Your task to perform on an android device: move an email to a new category in the gmail app Image 0: 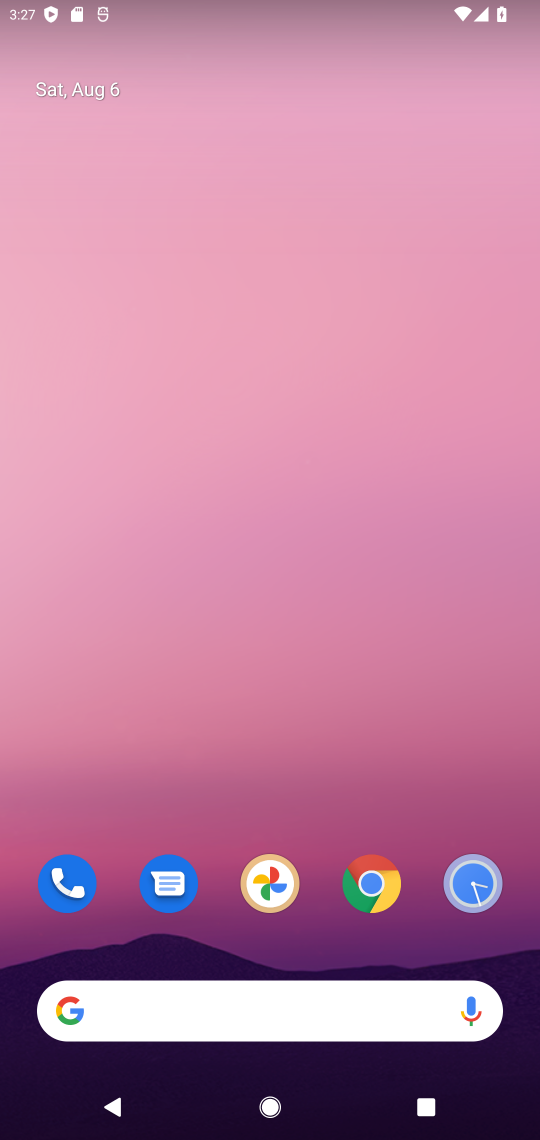
Step 0: drag from (309, 888) to (440, 135)
Your task to perform on an android device: move an email to a new category in the gmail app Image 1: 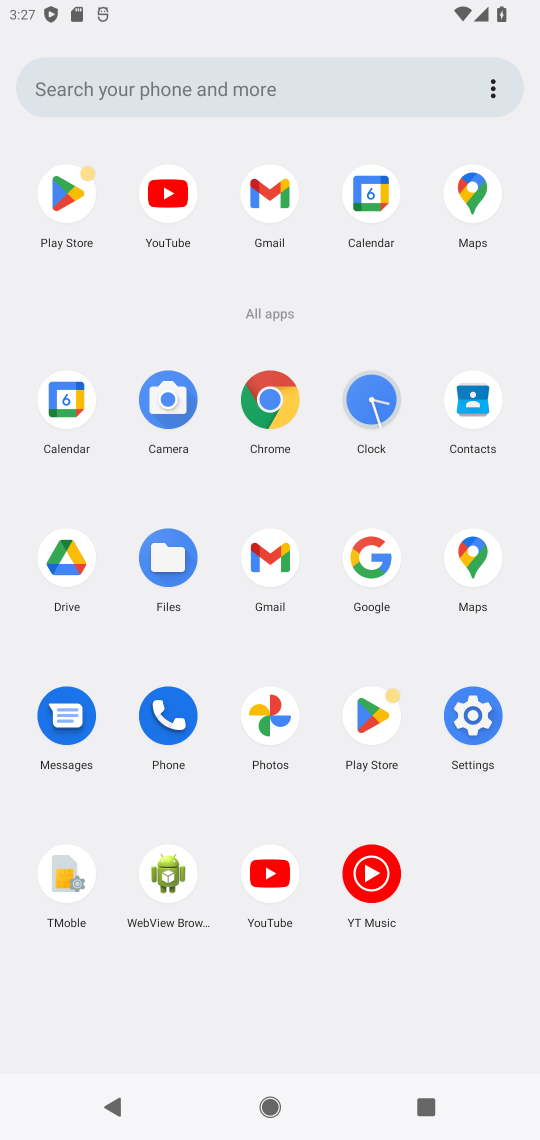
Step 1: click (275, 569)
Your task to perform on an android device: move an email to a new category in the gmail app Image 2: 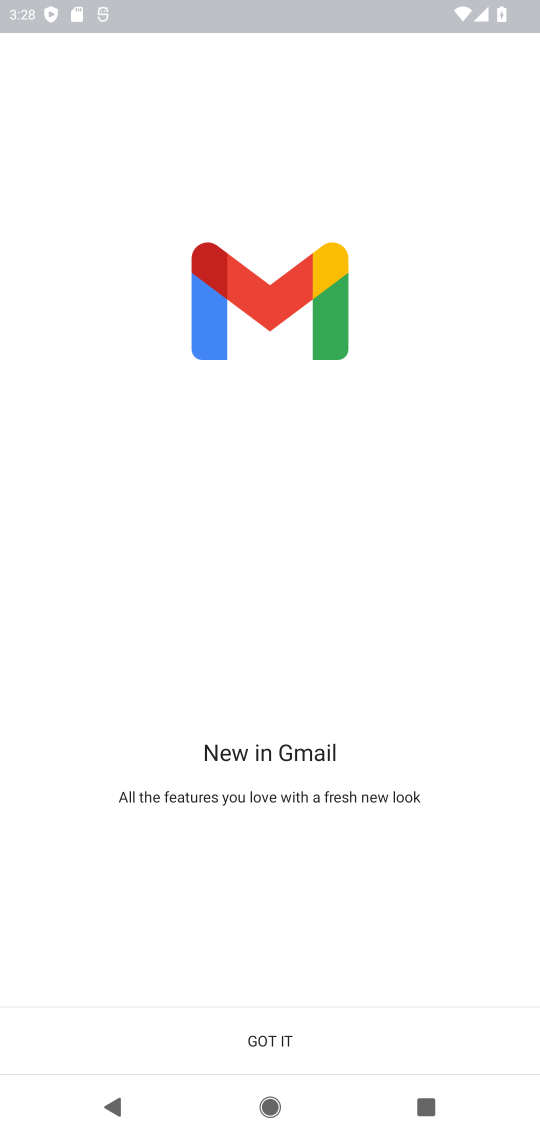
Step 2: click (238, 1026)
Your task to perform on an android device: move an email to a new category in the gmail app Image 3: 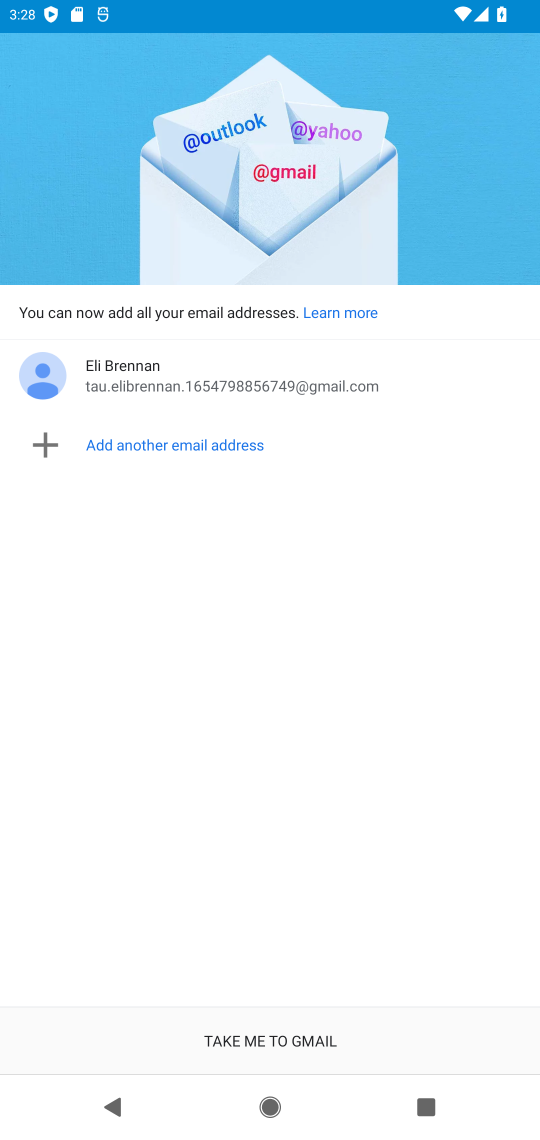
Step 3: click (231, 1022)
Your task to perform on an android device: move an email to a new category in the gmail app Image 4: 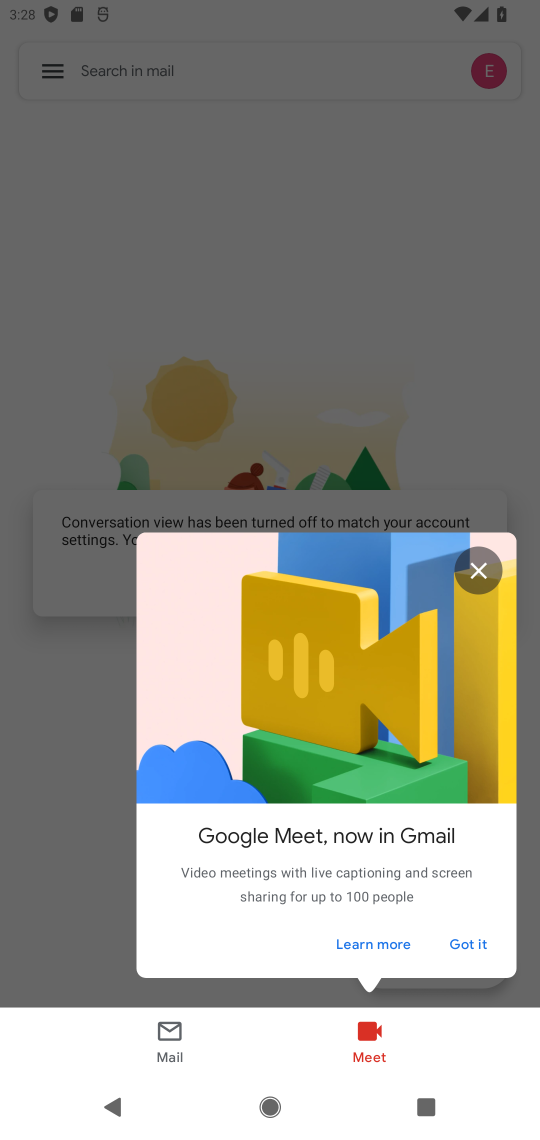
Step 4: click (469, 945)
Your task to perform on an android device: move an email to a new category in the gmail app Image 5: 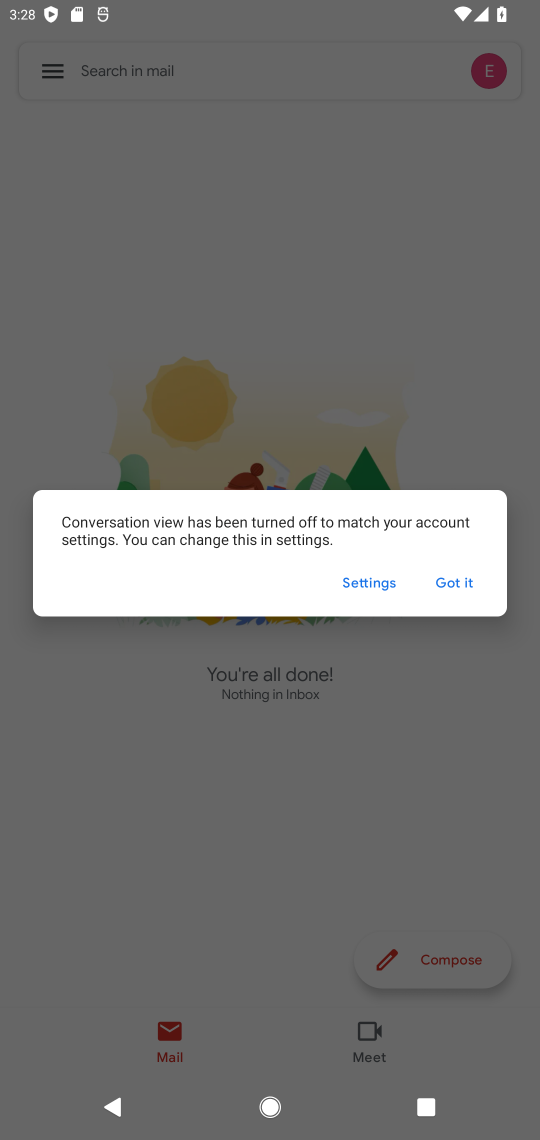
Step 5: click (449, 579)
Your task to perform on an android device: move an email to a new category in the gmail app Image 6: 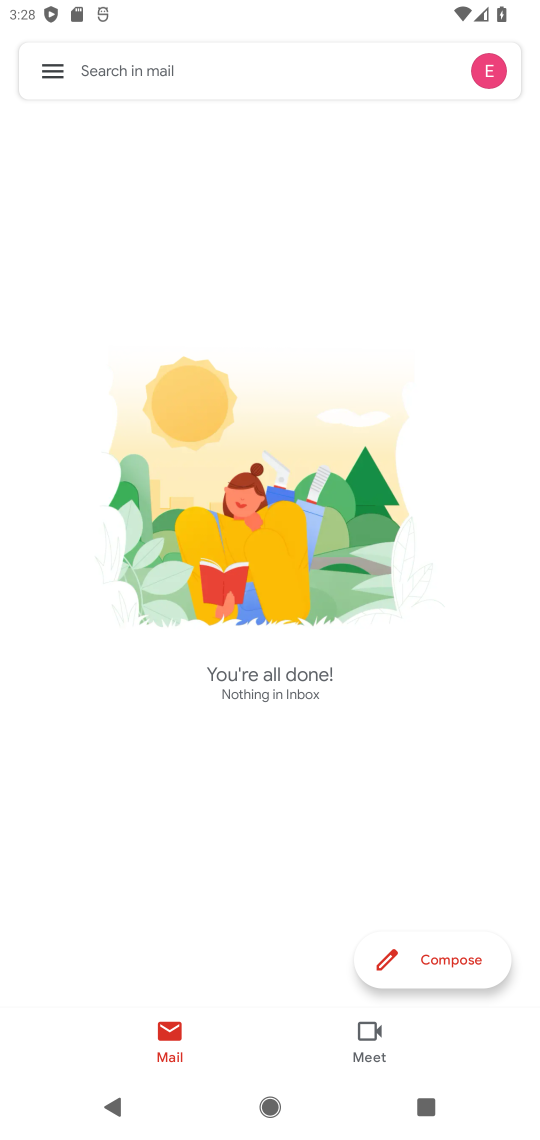
Step 6: click (63, 74)
Your task to perform on an android device: move an email to a new category in the gmail app Image 7: 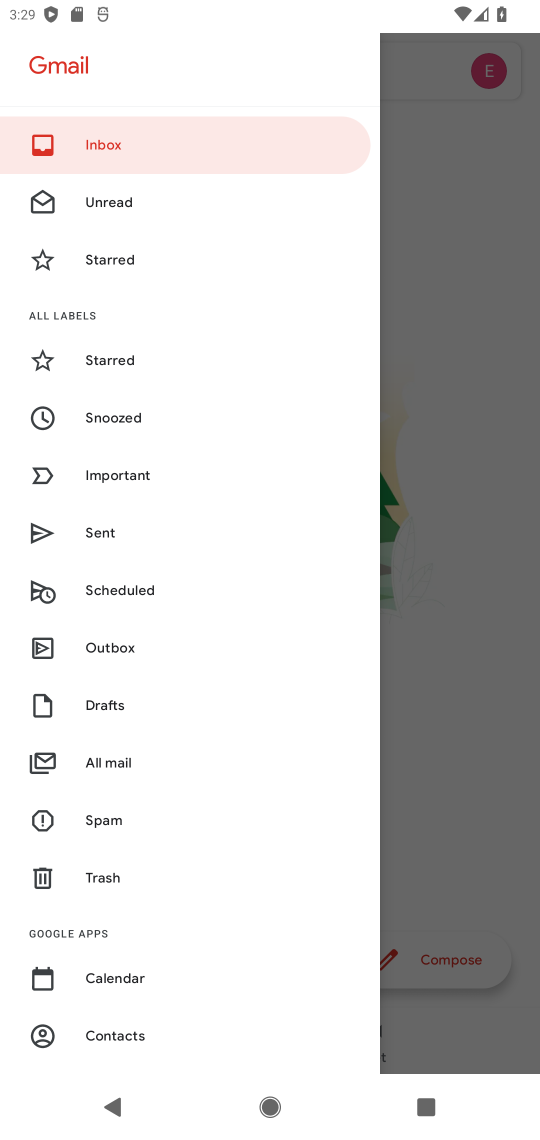
Step 7: click (103, 761)
Your task to perform on an android device: move an email to a new category in the gmail app Image 8: 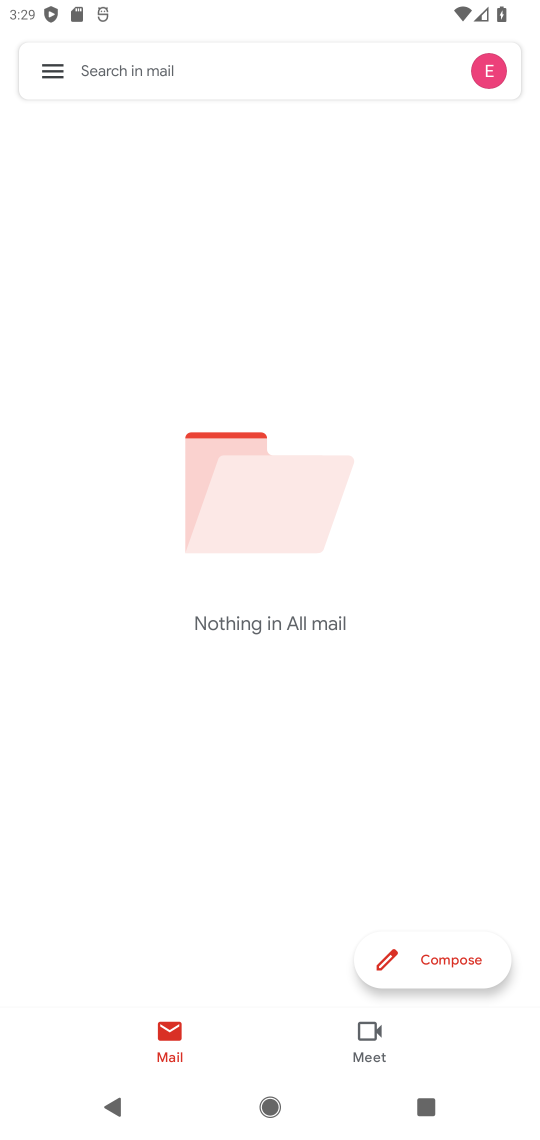
Step 8: task complete